Your task to perform on an android device: open the mobile data screen to see how much data has been used Image 0: 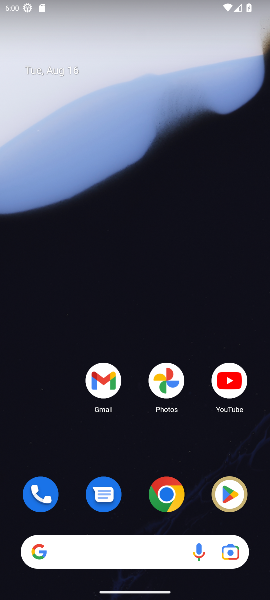
Step 0: drag from (63, 461) to (85, 185)
Your task to perform on an android device: open the mobile data screen to see how much data has been used Image 1: 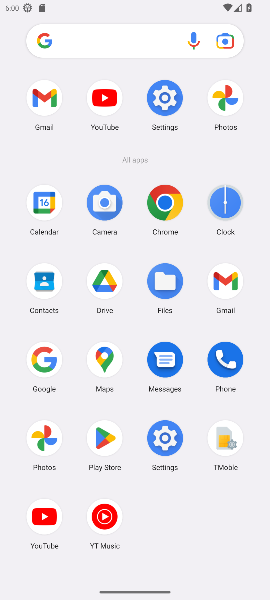
Step 1: click (161, 441)
Your task to perform on an android device: open the mobile data screen to see how much data has been used Image 2: 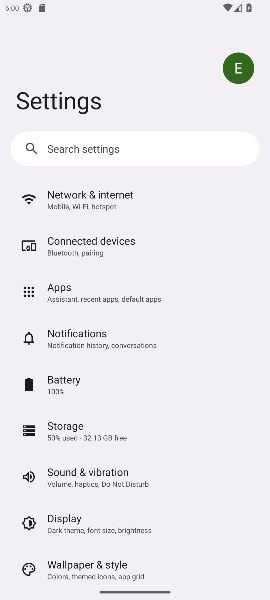
Step 2: task complete